Your task to perform on an android device: turn notification dots off Image 0: 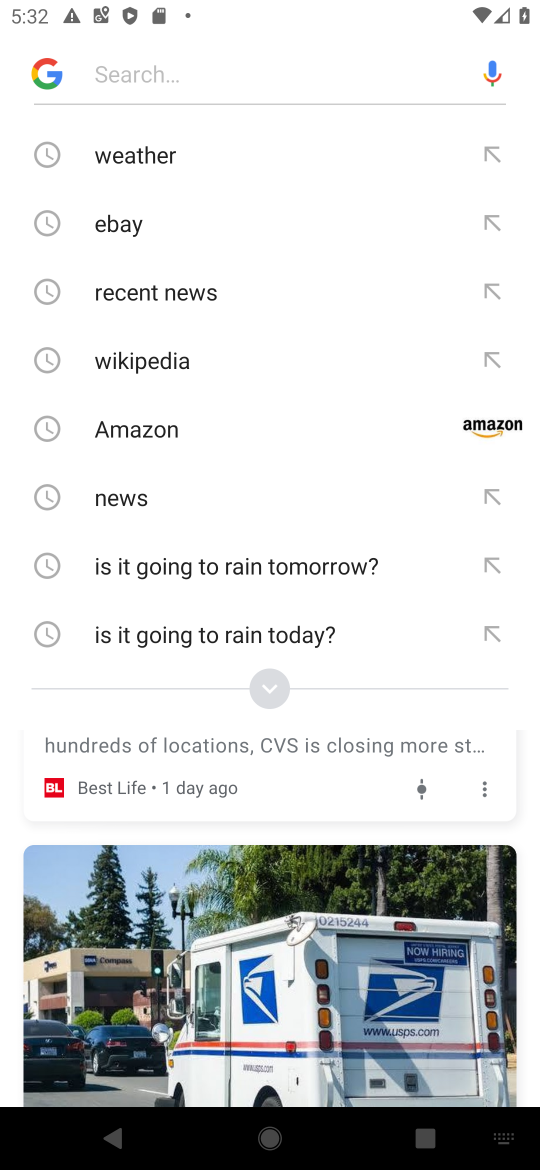
Step 0: press home button
Your task to perform on an android device: turn notification dots off Image 1: 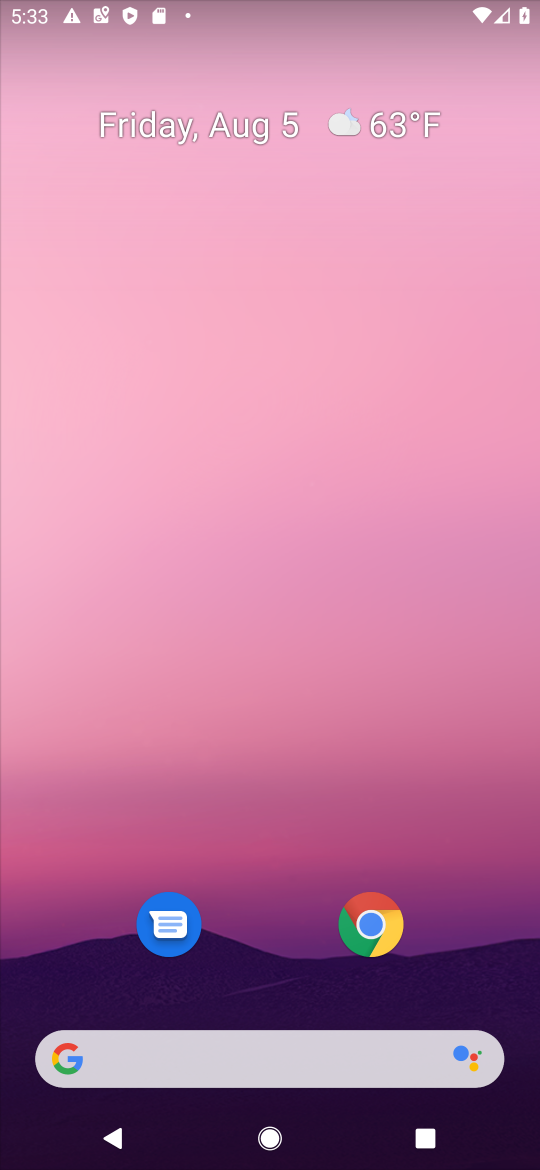
Step 1: press home button
Your task to perform on an android device: turn notification dots off Image 2: 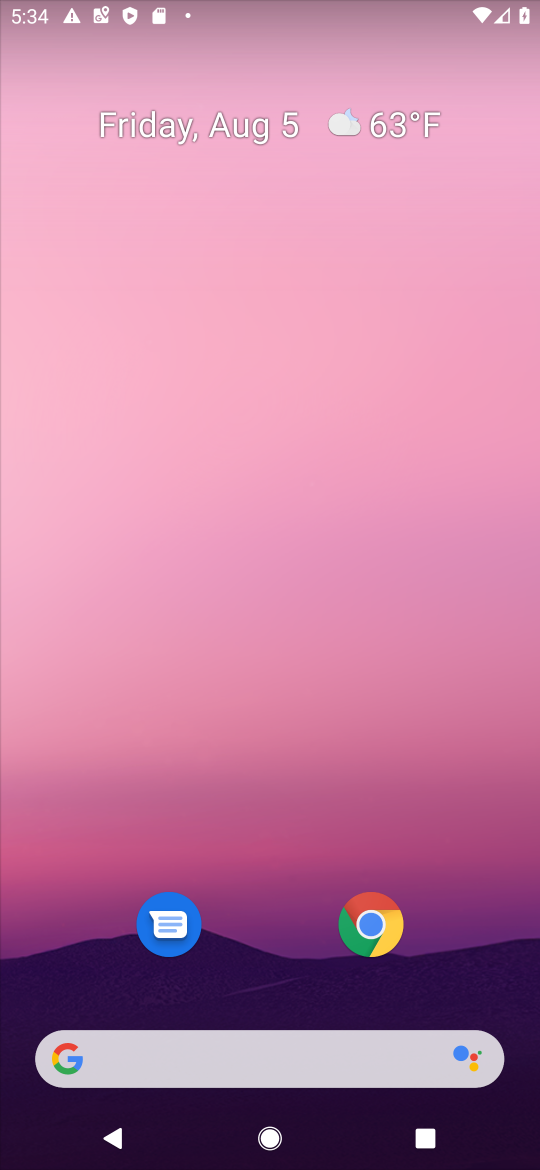
Step 2: drag from (178, 1127) to (374, 330)
Your task to perform on an android device: turn notification dots off Image 3: 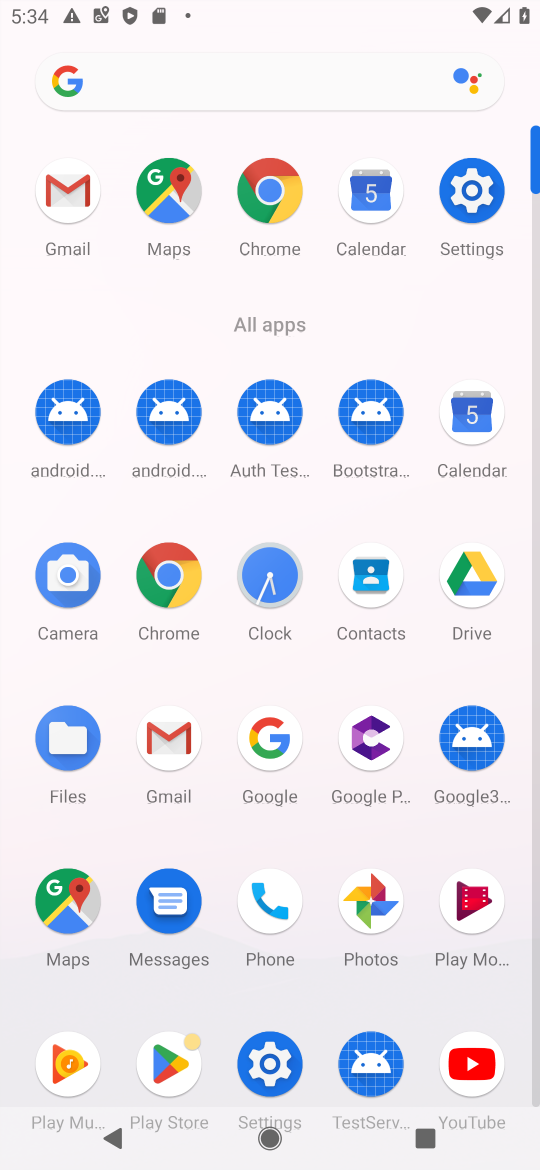
Step 3: click (467, 192)
Your task to perform on an android device: turn notification dots off Image 4: 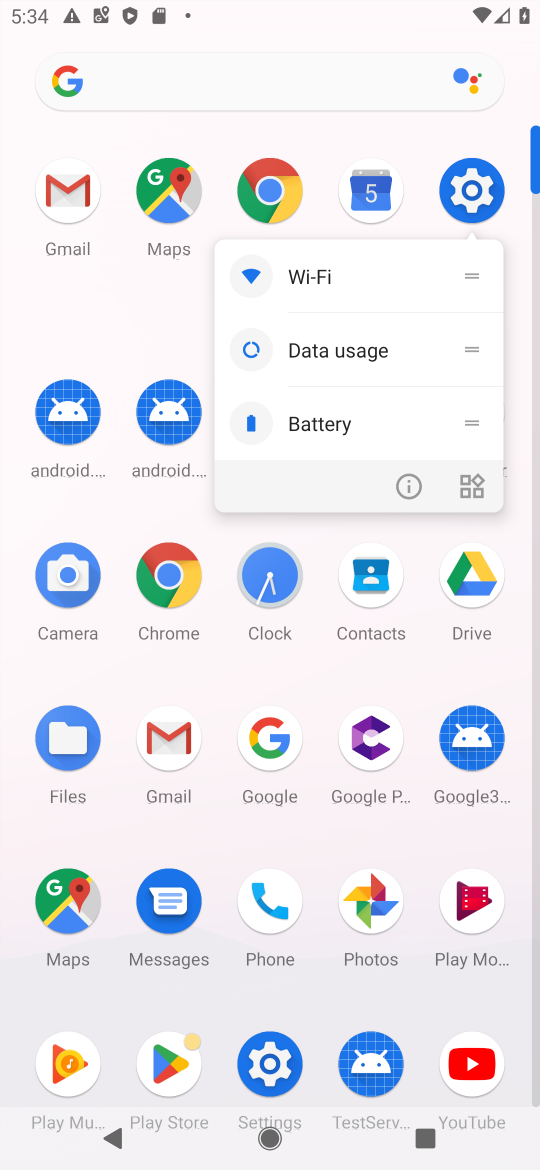
Step 4: click (467, 192)
Your task to perform on an android device: turn notification dots off Image 5: 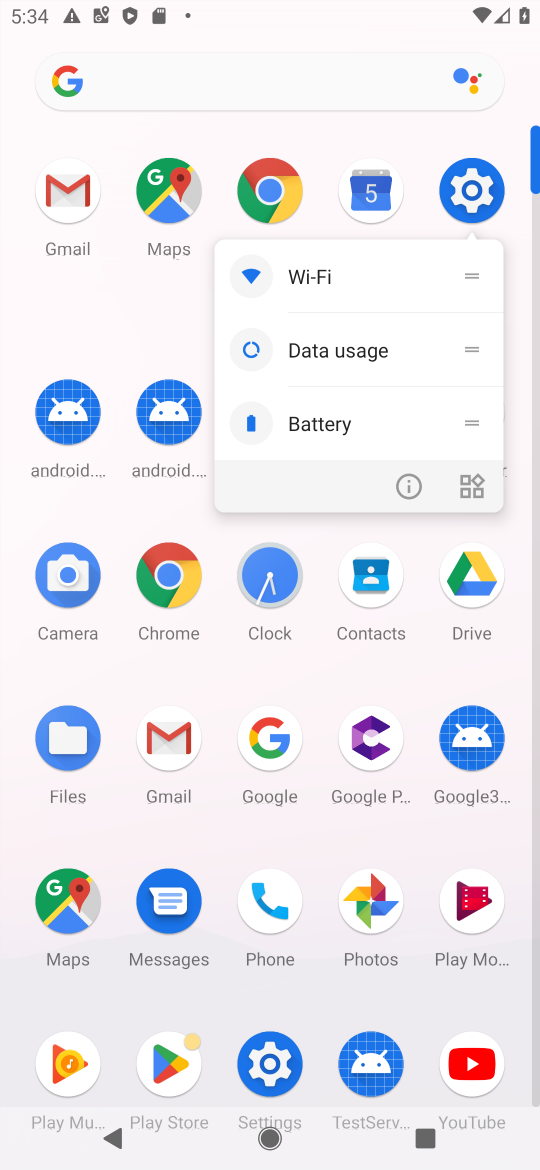
Step 5: click (467, 192)
Your task to perform on an android device: turn notification dots off Image 6: 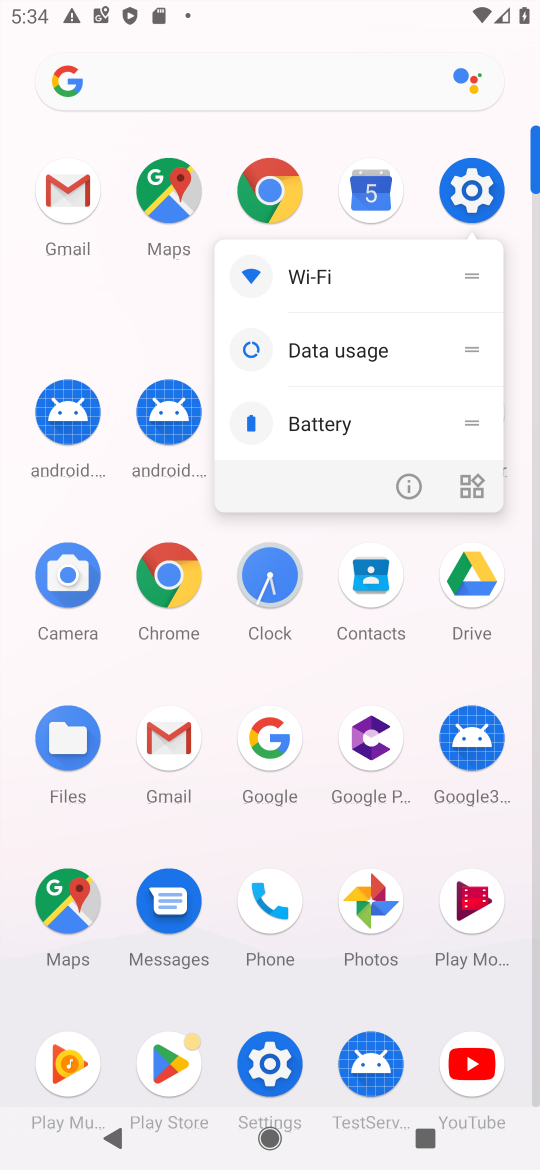
Step 6: click (467, 192)
Your task to perform on an android device: turn notification dots off Image 7: 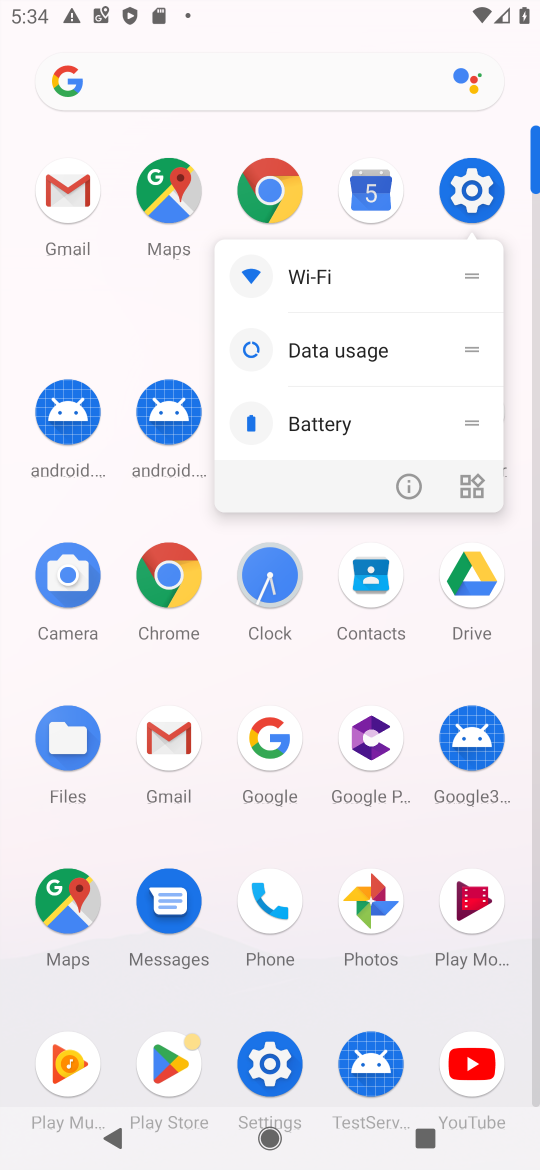
Step 7: click (467, 192)
Your task to perform on an android device: turn notification dots off Image 8: 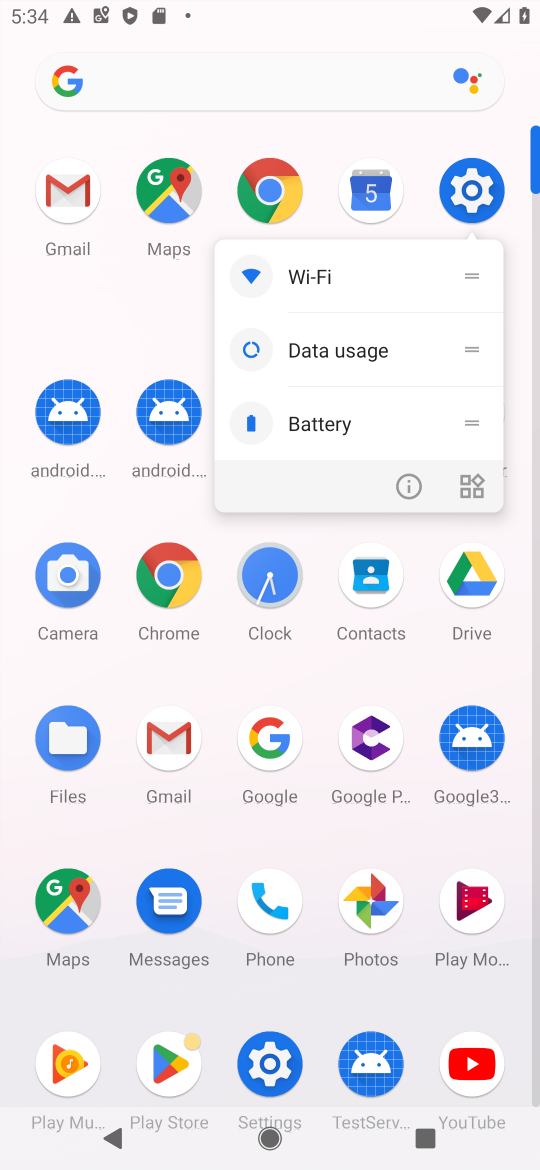
Step 8: click (484, 169)
Your task to perform on an android device: turn notification dots off Image 9: 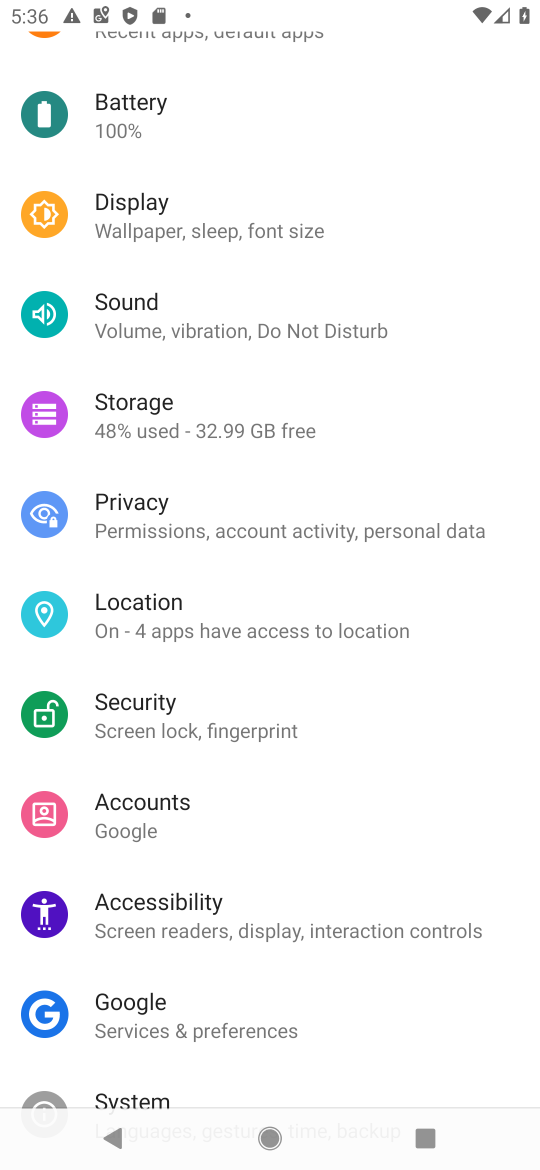
Step 9: drag from (337, 292) to (368, 567)
Your task to perform on an android device: turn notification dots off Image 10: 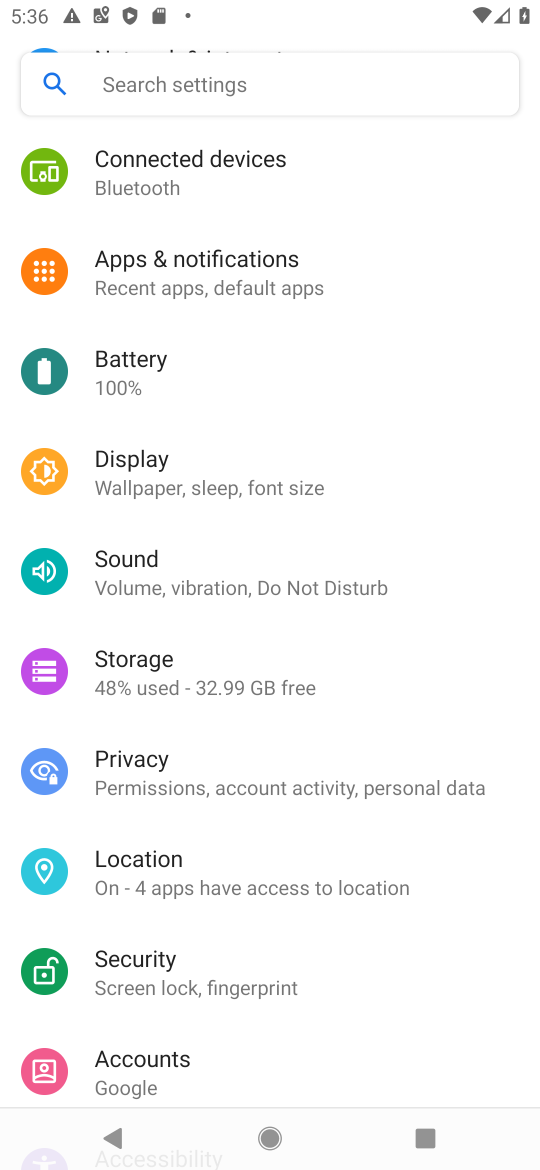
Step 10: click (248, 273)
Your task to perform on an android device: turn notification dots off Image 11: 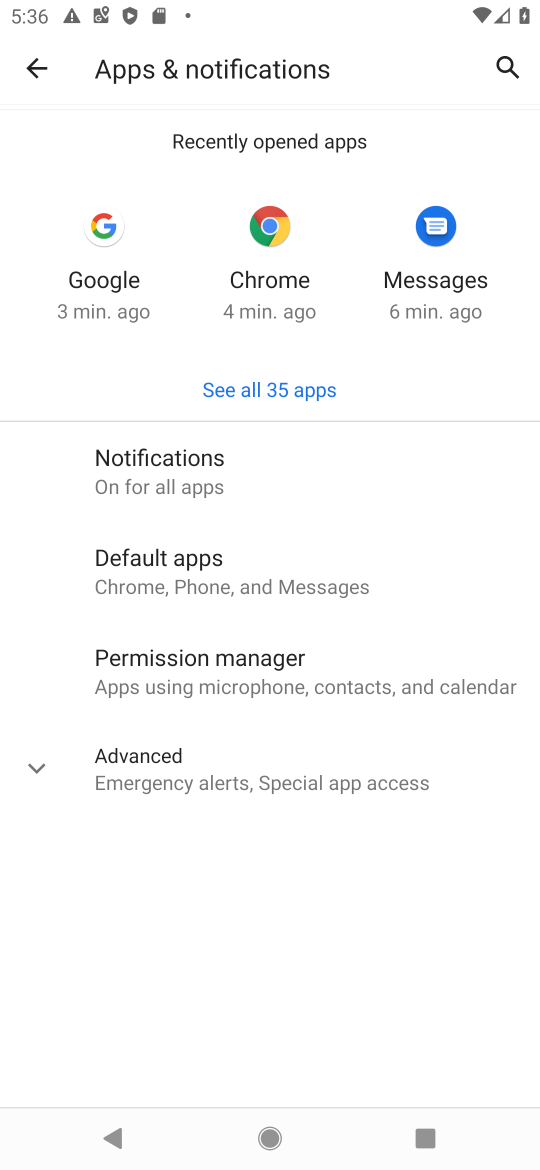
Step 11: click (243, 471)
Your task to perform on an android device: turn notification dots off Image 12: 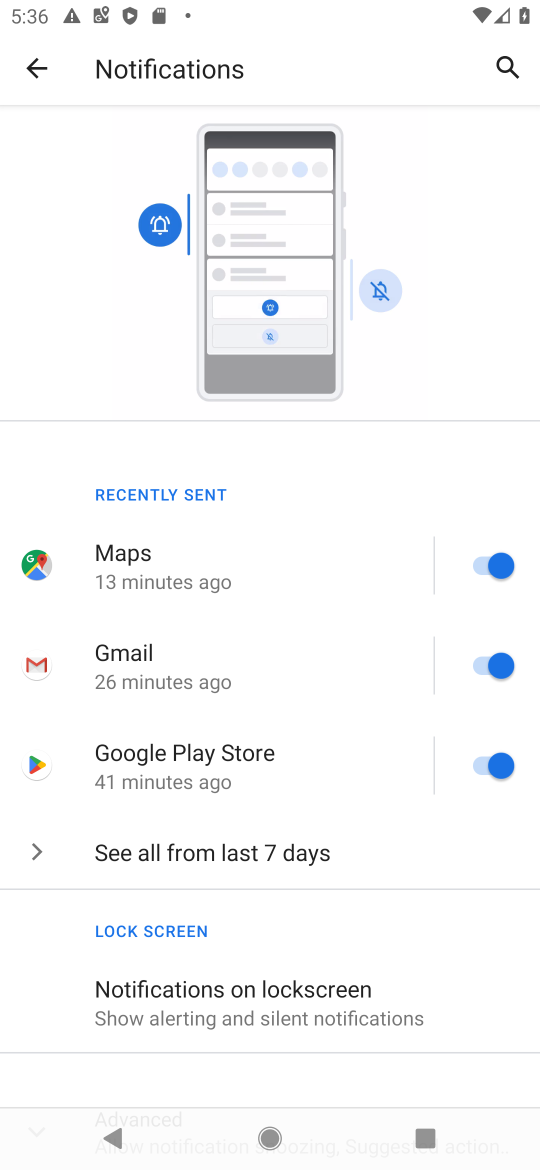
Step 12: drag from (336, 969) to (237, 337)
Your task to perform on an android device: turn notification dots off Image 13: 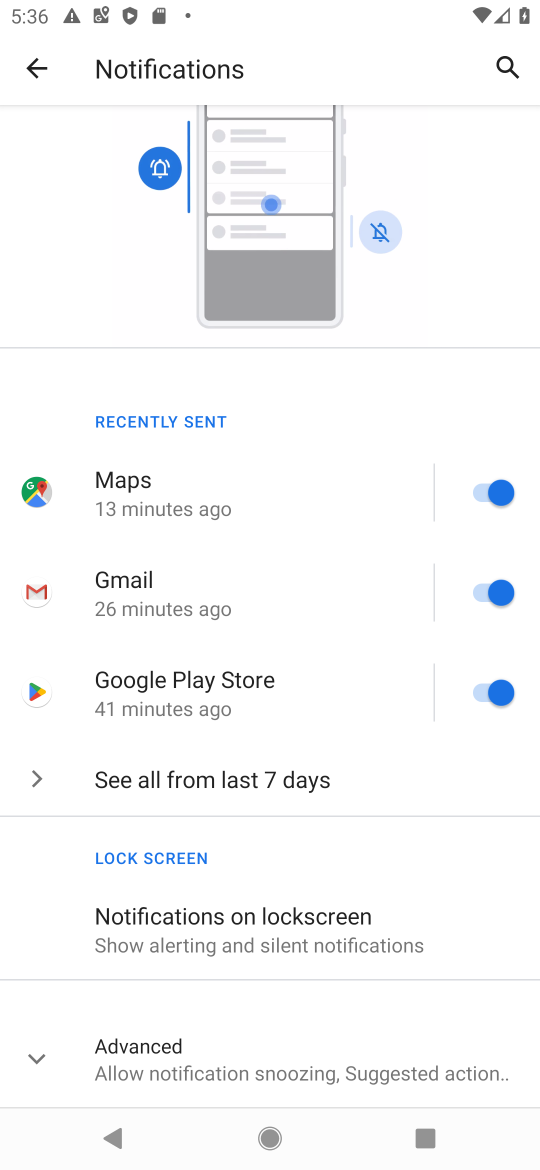
Step 13: click (318, 1060)
Your task to perform on an android device: turn notification dots off Image 14: 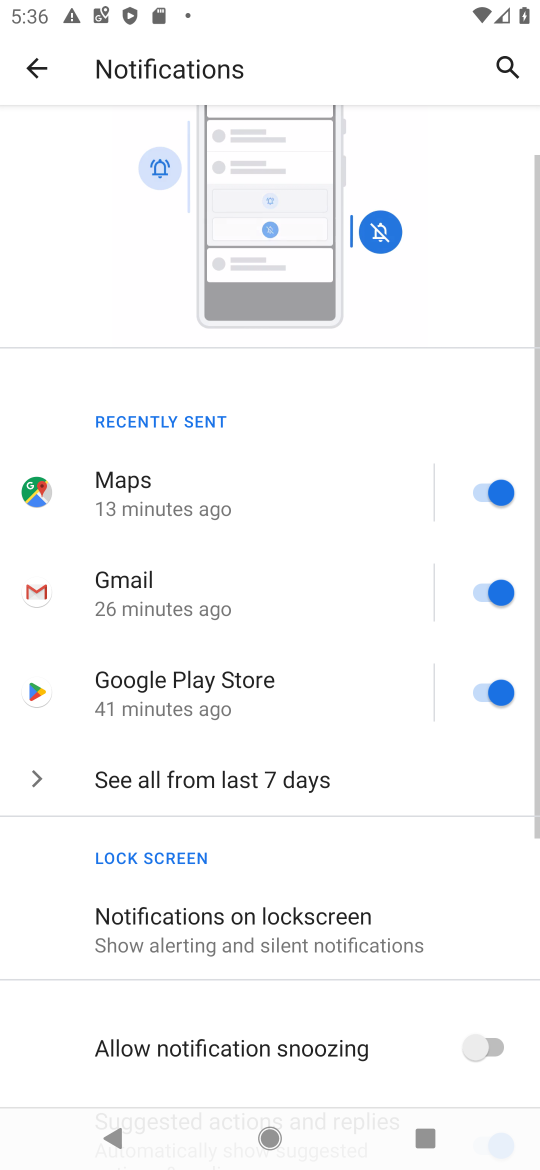
Step 14: drag from (319, 962) to (184, 562)
Your task to perform on an android device: turn notification dots off Image 15: 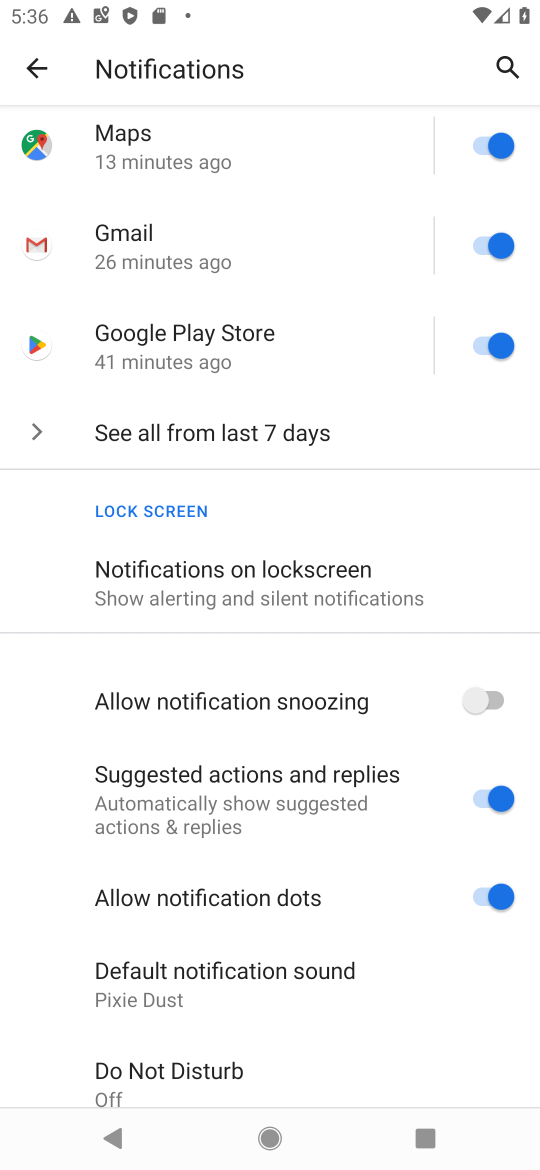
Step 15: click (493, 892)
Your task to perform on an android device: turn notification dots off Image 16: 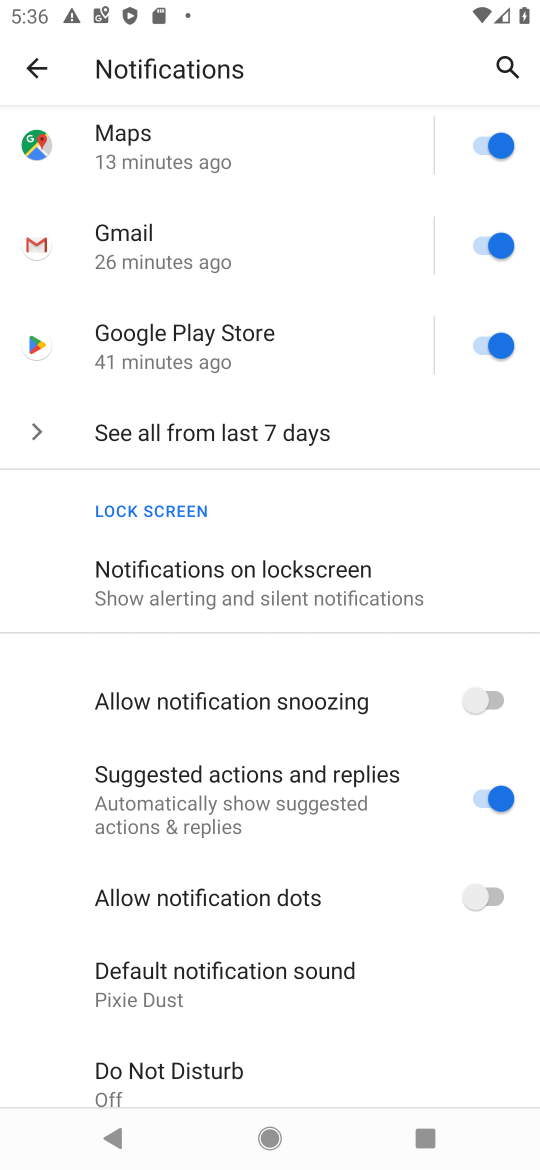
Step 16: task complete